Your task to perform on an android device: Open internet settings Image 0: 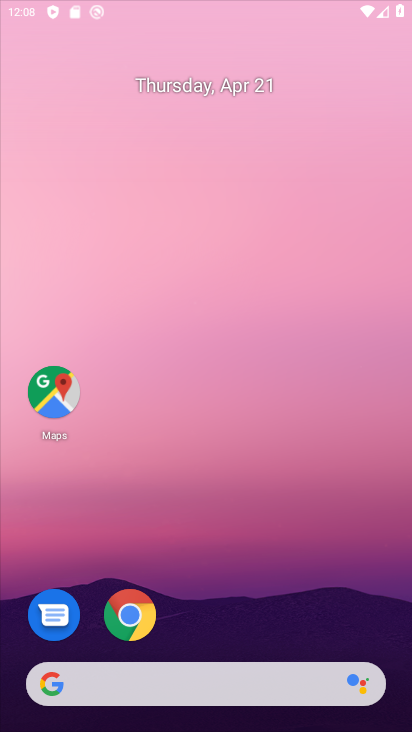
Step 0: click (276, 114)
Your task to perform on an android device: Open internet settings Image 1: 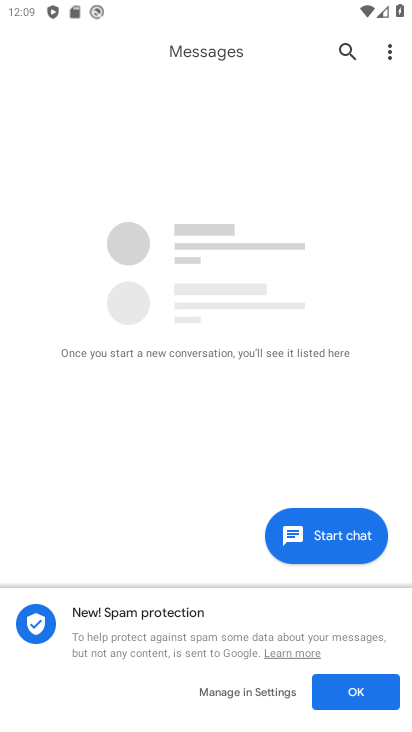
Step 1: press home button
Your task to perform on an android device: Open internet settings Image 2: 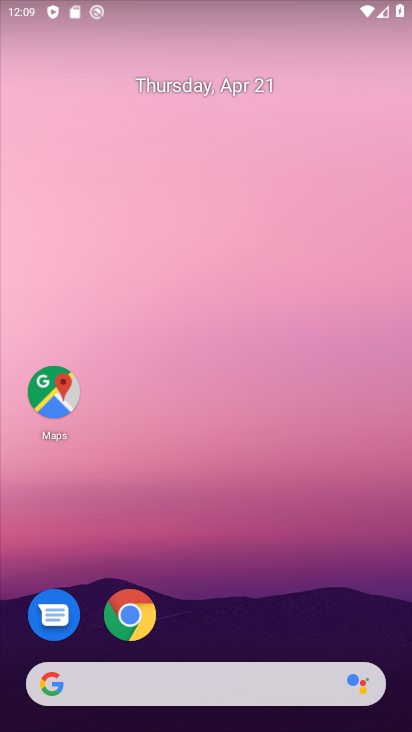
Step 2: drag from (212, 496) to (215, 155)
Your task to perform on an android device: Open internet settings Image 3: 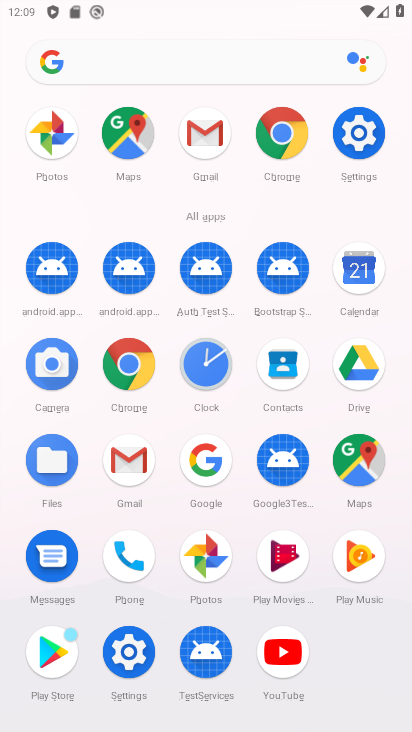
Step 3: click (346, 143)
Your task to perform on an android device: Open internet settings Image 4: 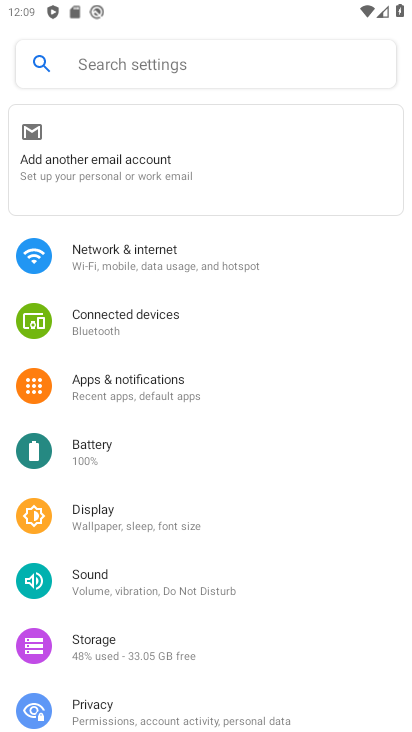
Step 4: click (145, 259)
Your task to perform on an android device: Open internet settings Image 5: 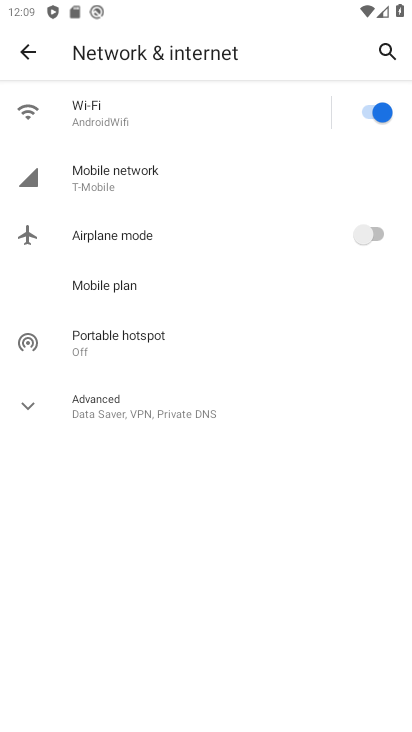
Step 5: task complete